Your task to perform on an android device: Open internet settings Image 0: 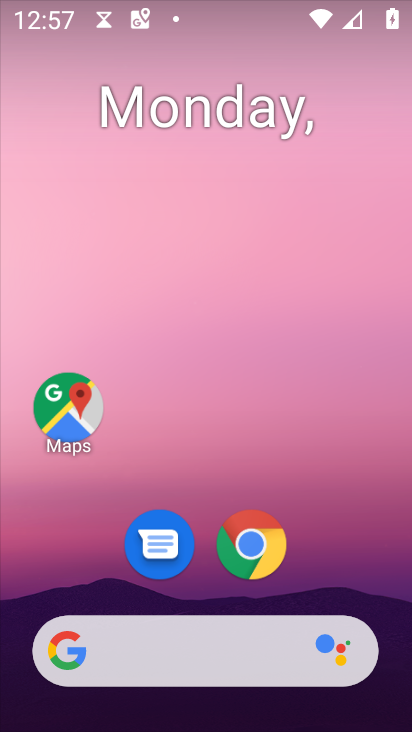
Step 0: drag from (345, 542) to (319, 214)
Your task to perform on an android device: Open internet settings Image 1: 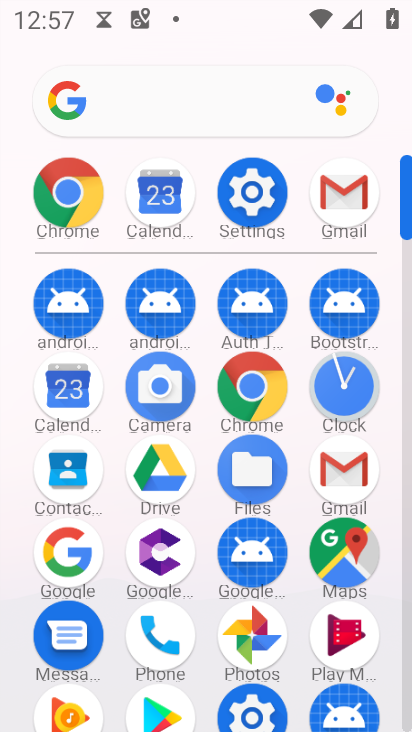
Step 1: click (238, 195)
Your task to perform on an android device: Open internet settings Image 2: 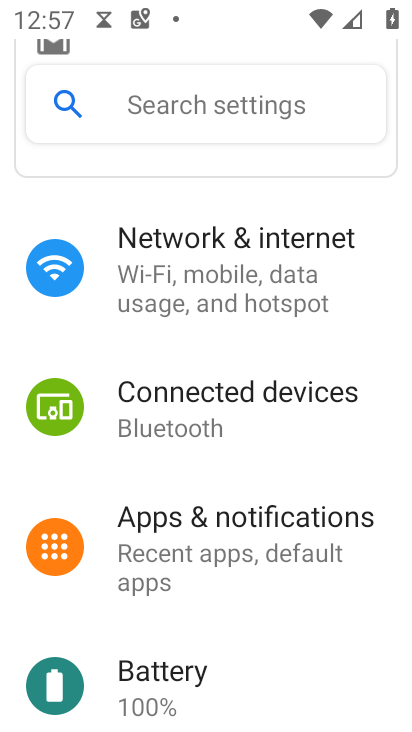
Step 2: click (238, 268)
Your task to perform on an android device: Open internet settings Image 3: 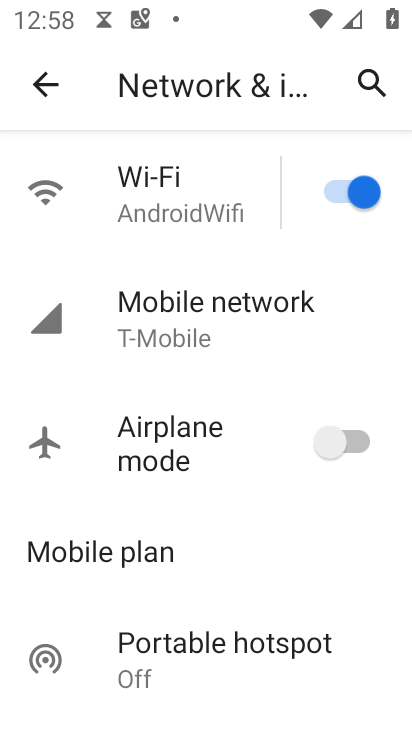
Step 3: task complete